Your task to perform on an android device: Turn on the flashlight Image 0: 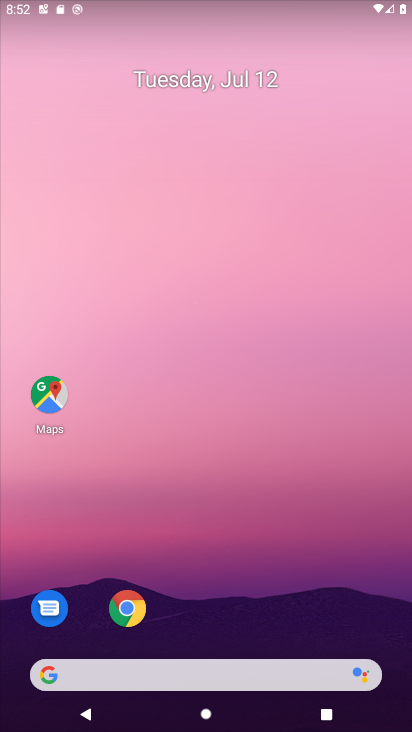
Step 0: drag from (260, 0) to (242, 479)
Your task to perform on an android device: Turn on the flashlight Image 1: 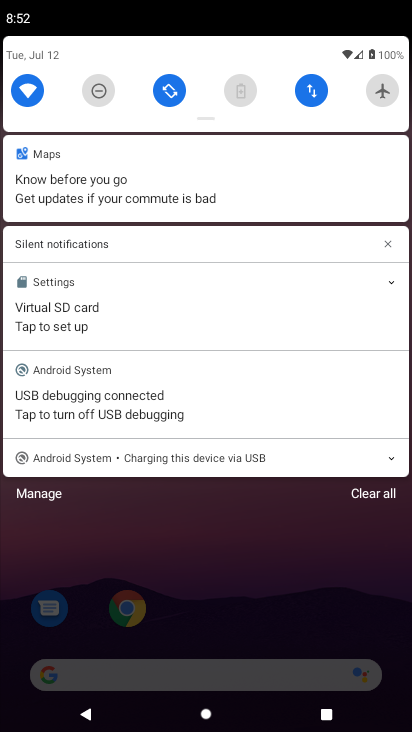
Step 1: task complete